Your task to perform on an android device: Open Youtube and go to the subscriptions tab Image 0: 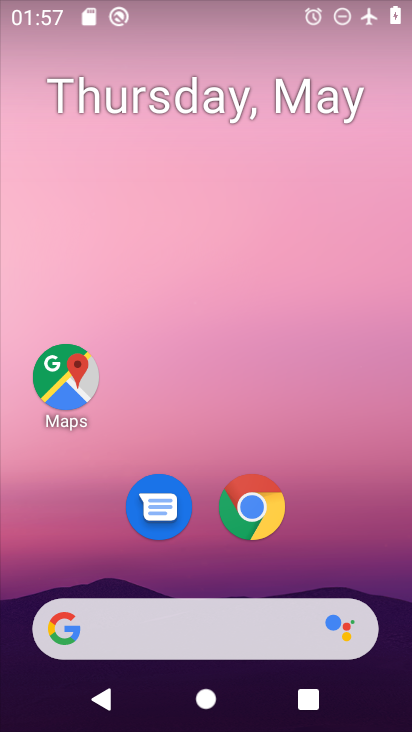
Step 0: drag from (383, 539) to (353, 98)
Your task to perform on an android device: Open Youtube and go to the subscriptions tab Image 1: 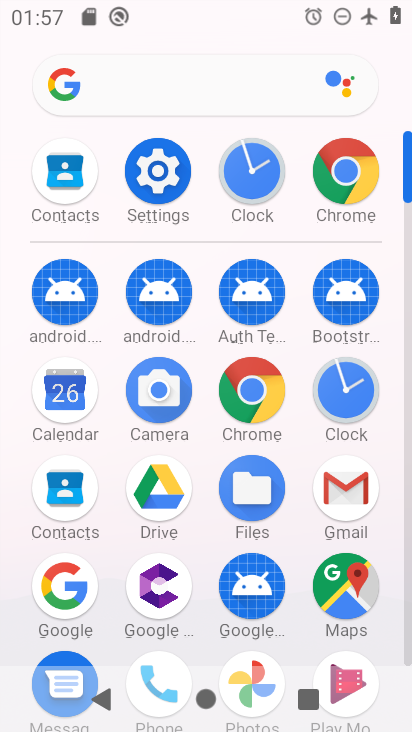
Step 1: click (403, 653)
Your task to perform on an android device: Open Youtube and go to the subscriptions tab Image 2: 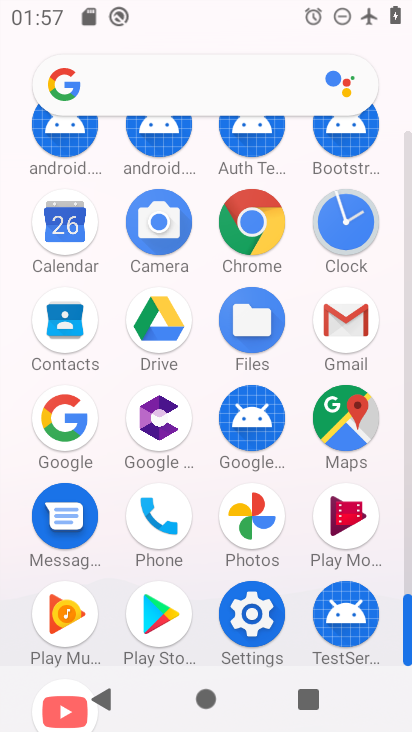
Step 2: drag from (405, 649) to (389, 700)
Your task to perform on an android device: Open Youtube and go to the subscriptions tab Image 3: 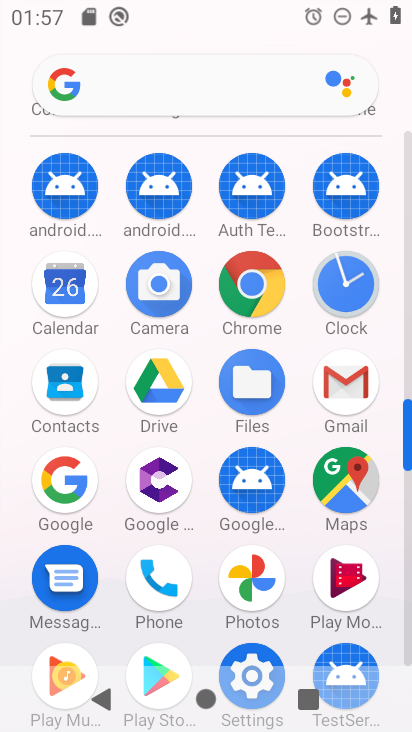
Step 3: click (408, 657)
Your task to perform on an android device: Open Youtube and go to the subscriptions tab Image 4: 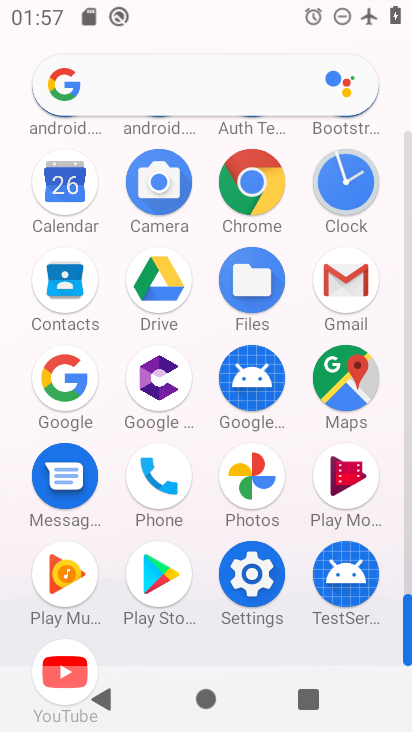
Step 4: click (68, 657)
Your task to perform on an android device: Open Youtube and go to the subscriptions tab Image 5: 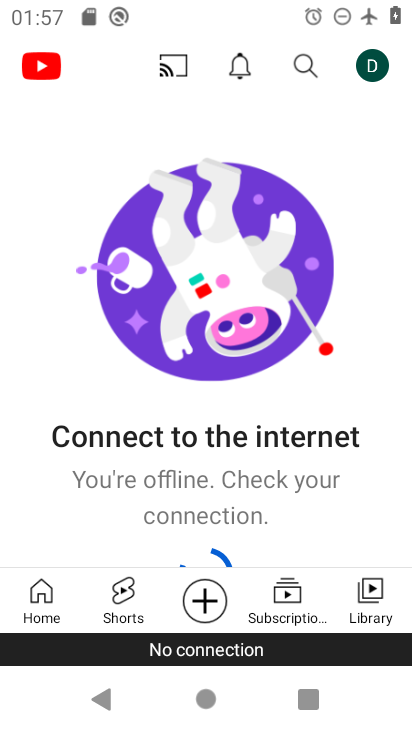
Step 5: click (293, 589)
Your task to perform on an android device: Open Youtube and go to the subscriptions tab Image 6: 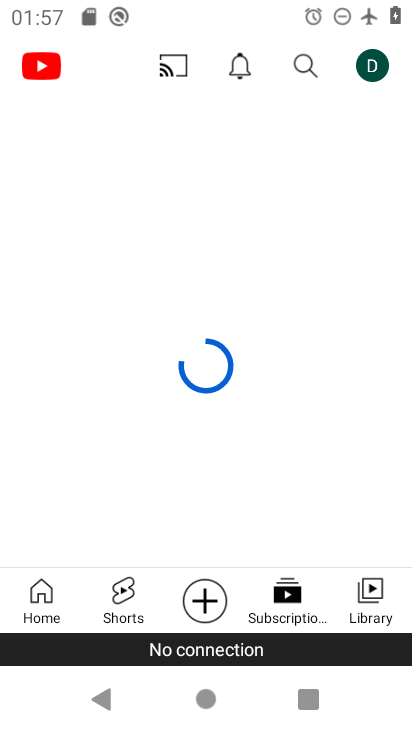
Step 6: task complete